Your task to perform on an android device: turn off location history Image 0: 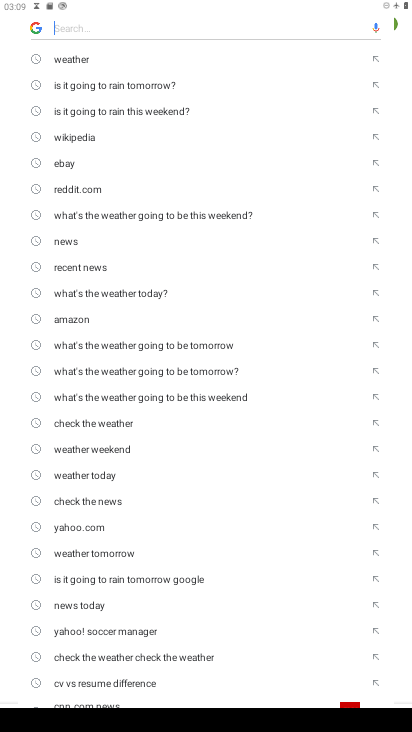
Step 0: press home button
Your task to perform on an android device: turn off location history Image 1: 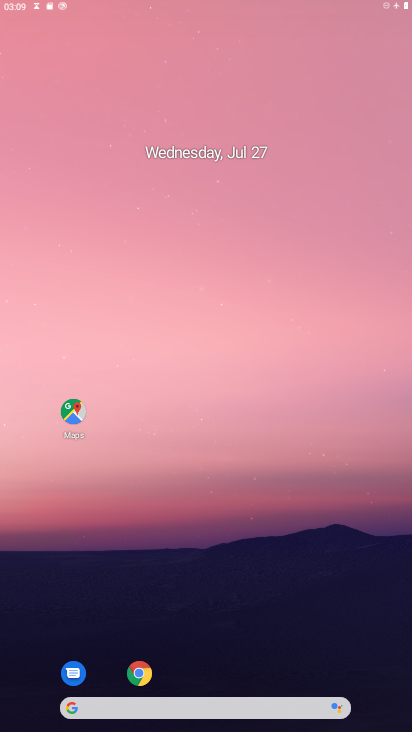
Step 1: drag from (172, 663) to (169, 74)
Your task to perform on an android device: turn off location history Image 2: 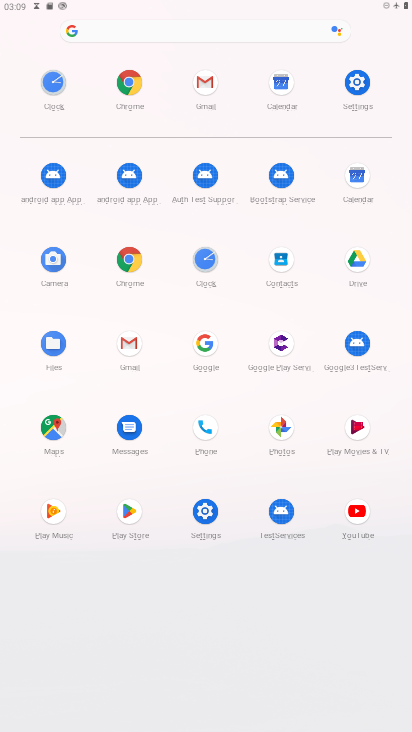
Step 2: click (210, 517)
Your task to perform on an android device: turn off location history Image 3: 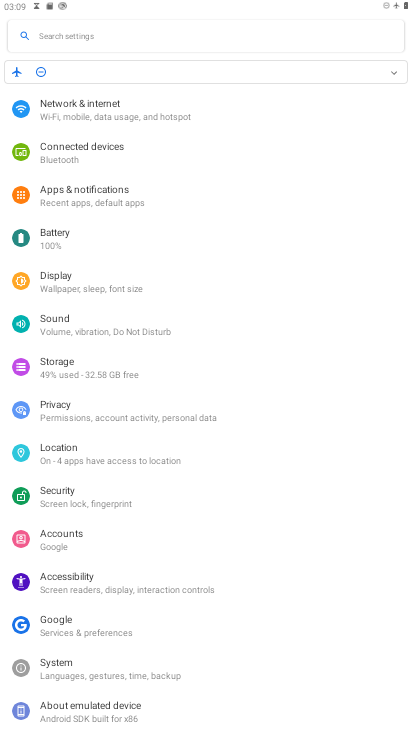
Step 3: click (80, 444)
Your task to perform on an android device: turn off location history Image 4: 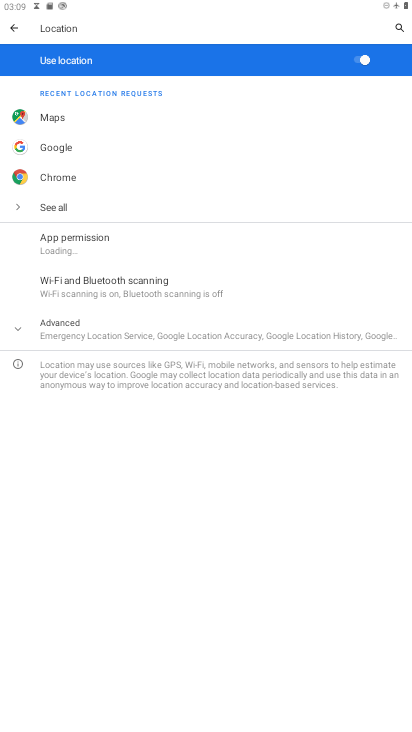
Step 4: click (120, 326)
Your task to perform on an android device: turn off location history Image 5: 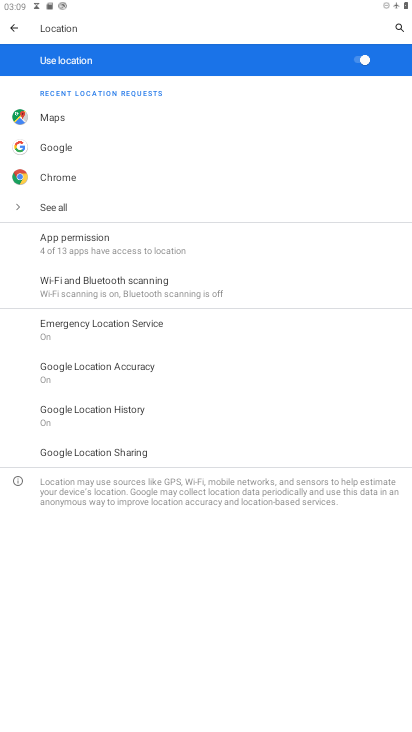
Step 5: click (145, 399)
Your task to perform on an android device: turn off location history Image 6: 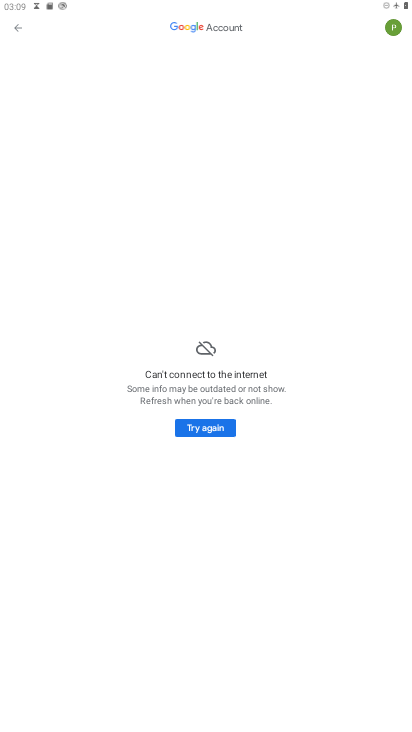
Step 6: click (226, 433)
Your task to perform on an android device: turn off location history Image 7: 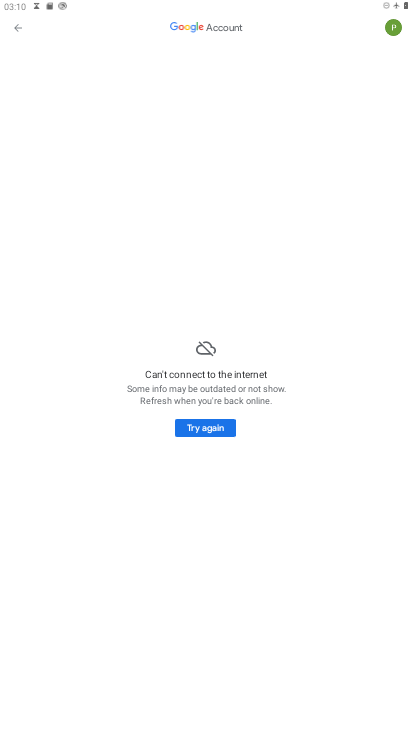
Step 7: task complete